Your task to perform on an android device: change the clock display to analog Image 0: 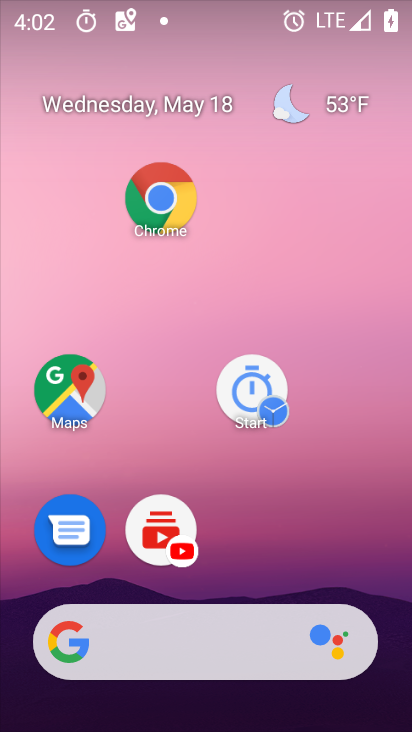
Step 0: drag from (273, 684) to (183, 179)
Your task to perform on an android device: change the clock display to analog Image 1: 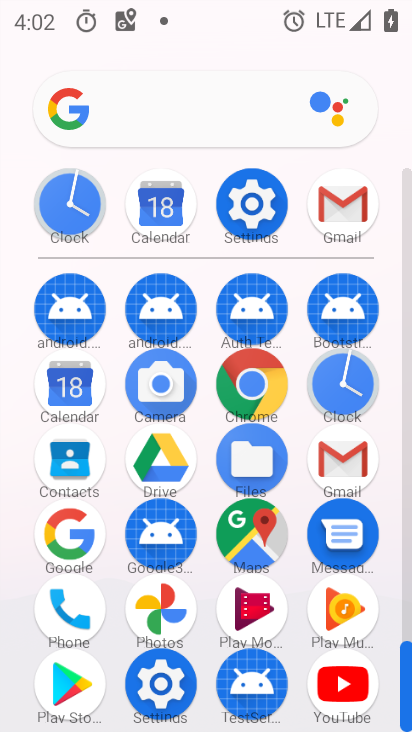
Step 1: click (342, 350)
Your task to perform on an android device: change the clock display to analog Image 2: 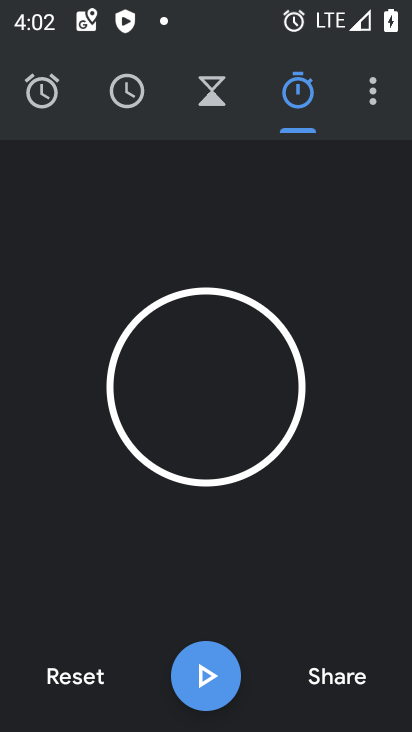
Step 2: click (373, 91)
Your task to perform on an android device: change the clock display to analog Image 3: 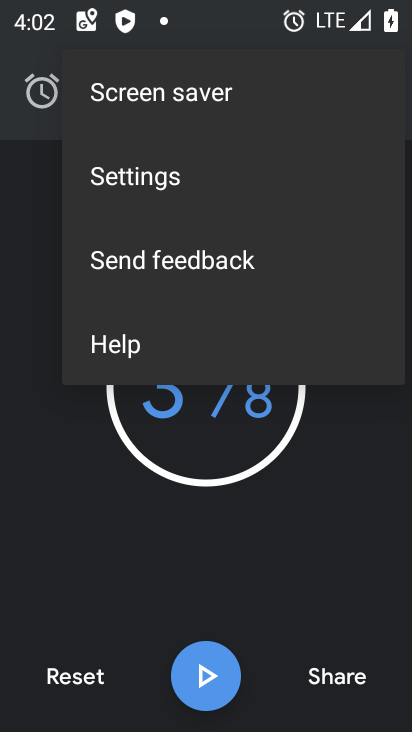
Step 3: click (107, 171)
Your task to perform on an android device: change the clock display to analog Image 4: 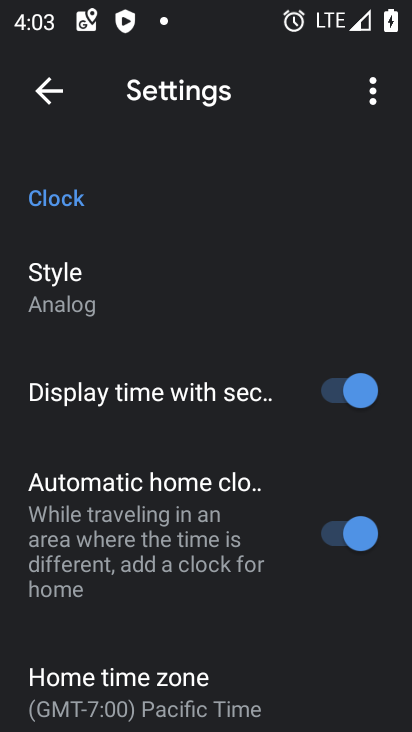
Step 4: task complete